Your task to perform on an android device: Show the shopping cart on target.com. Search for "acer predator" on target.com, select the first entry, add it to the cart, then select checkout. Image 0: 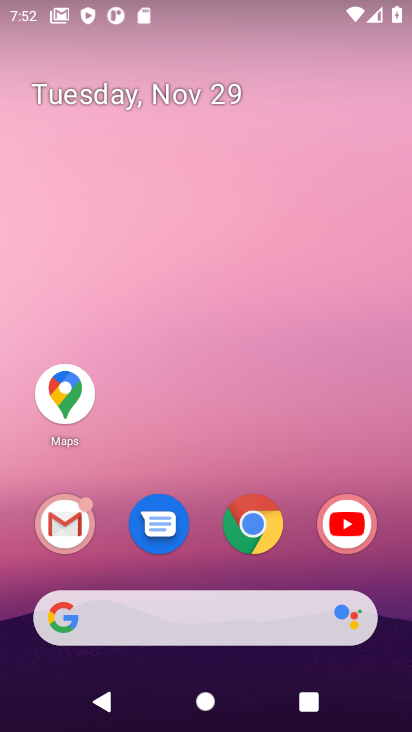
Step 0: click (250, 526)
Your task to perform on an android device: Show the shopping cart on target.com. Search for "acer predator" on target.com, select the first entry, add it to the cart, then select checkout. Image 1: 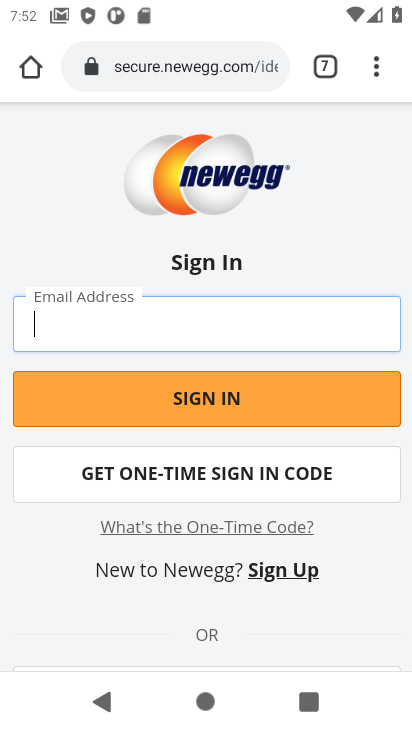
Step 1: click (193, 69)
Your task to perform on an android device: Show the shopping cart on target.com. Search for "acer predator" on target.com, select the first entry, add it to the cart, then select checkout. Image 2: 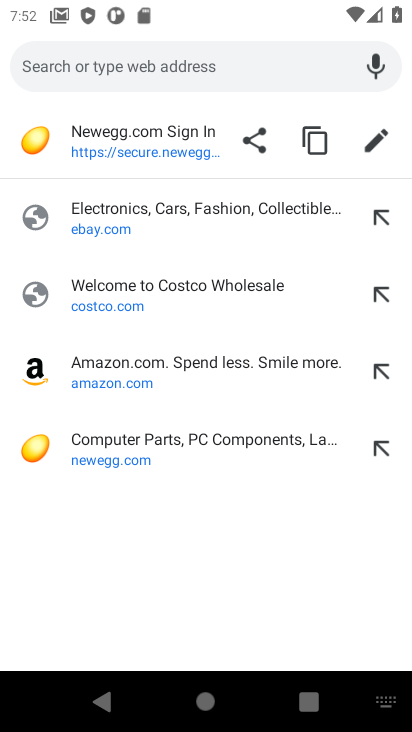
Step 2: type "target.com"
Your task to perform on an android device: Show the shopping cart on target.com. Search for "acer predator" on target.com, select the first entry, add it to the cart, then select checkout. Image 3: 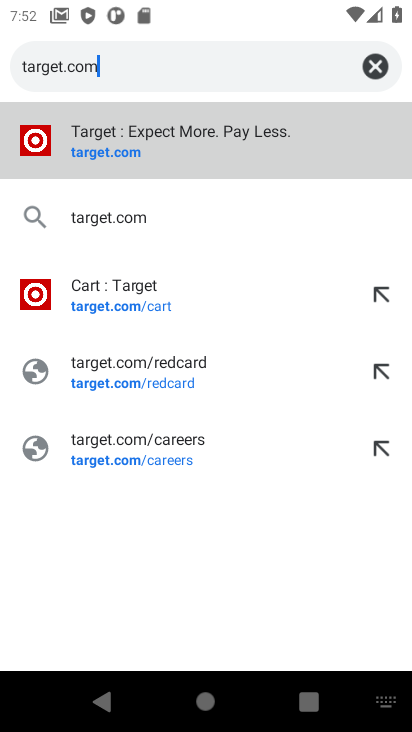
Step 3: click (111, 148)
Your task to perform on an android device: Show the shopping cart on target.com. Search for "acer predator" on target.com, select the first entry, add it to the cart, then select checkout. Image 4: 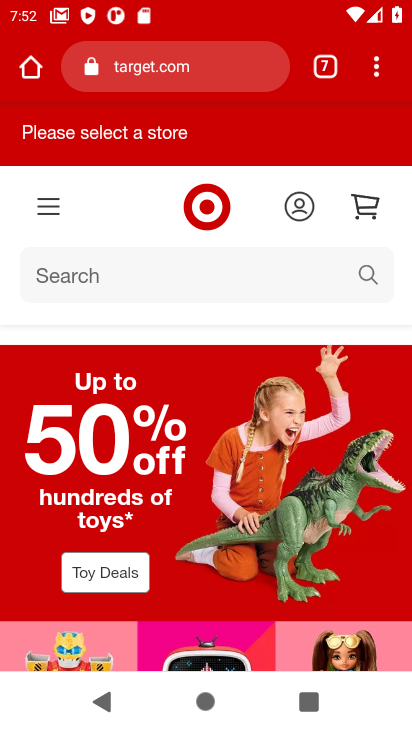
Step 4: click (362, 202)
Your task to perform on an android device: Show the shopping cart on target.com. Search for "acer predator" on target.com, select the first entry, add it to the cart, then select checkout. Image 5: 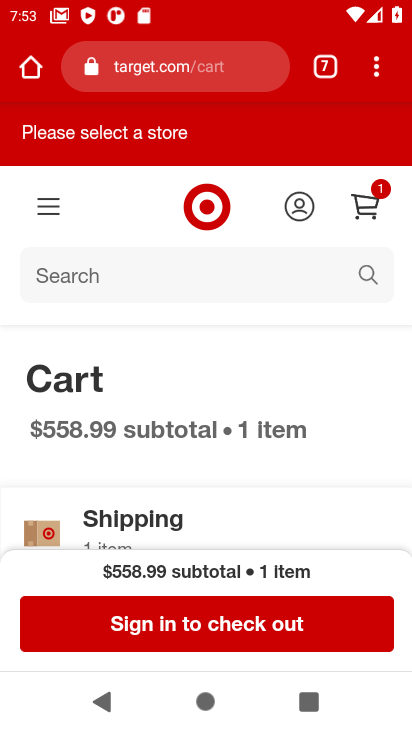
Step 5: drag from (340, 448) to (360, 315)
Your task to perform on an android device: Show the shopping cart on target.com. Search for "acer predator" on target.com, select the first entry, add it to the cart, then select checkout. Image 6: 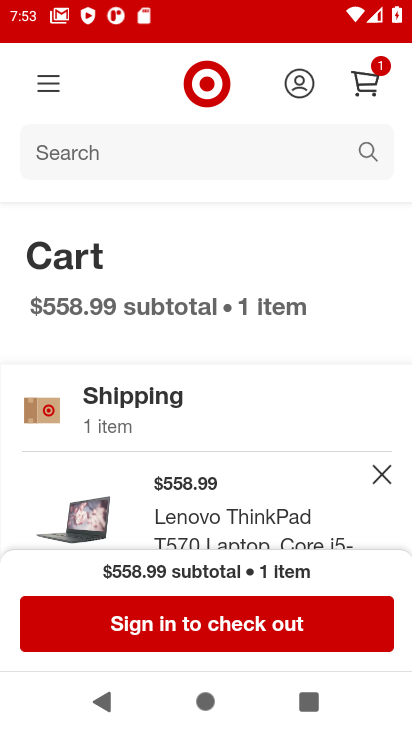
Step 6: click (42, 152)
Your task to perform on an android device: Show the shopping cart on target.com. Search for "acer predator" on target.com, select the first entry, add it to the cart, then select checkout. Image 7: 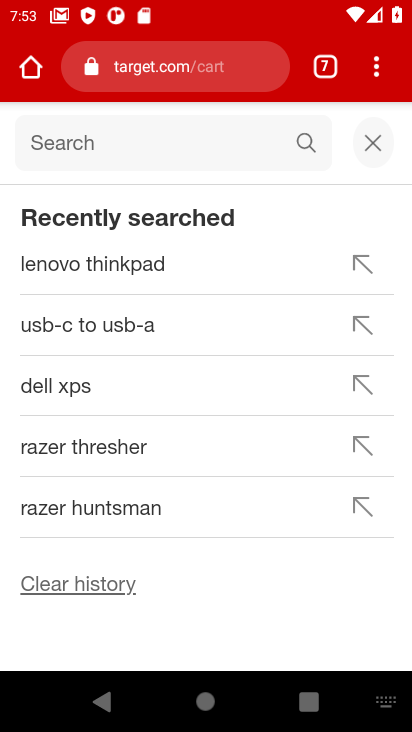
Step 7: type "acer predator"
Your task to perform on an android device: Show the shopping cart on target.com. Search for "acer predator" on target.com, select the first entry, add it to the cart, then select checkout. Image 8: 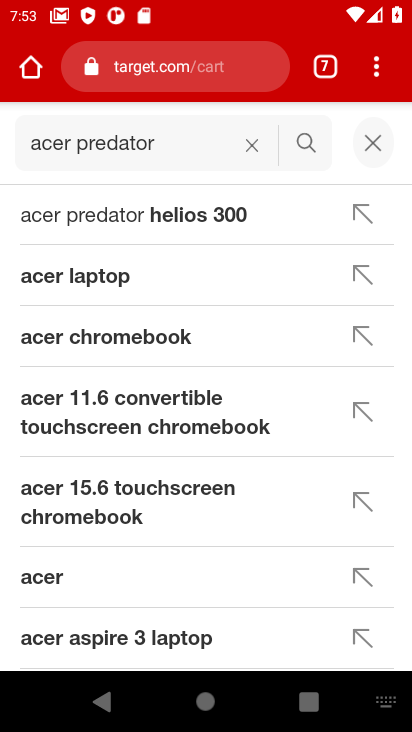
Step 8: click (308, 143)
Your task to perform on an android device: Show the shopping cart on target.com. Search for "acer predator" on target.com, select the first entry, add it to the cart, then select checkout. Image 9: 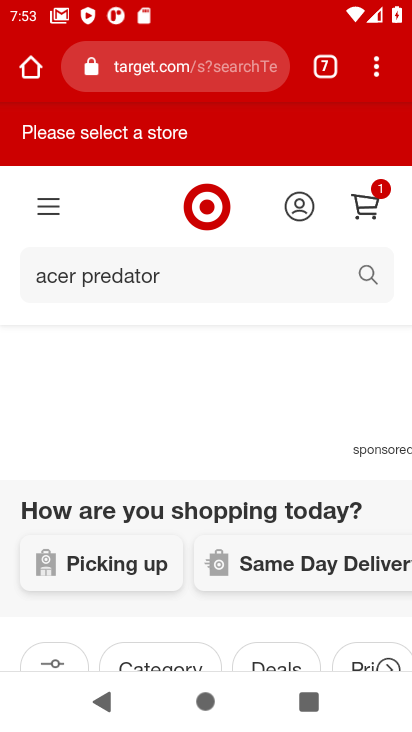
Step 9: drag from (129, 383) to (108, 159)
Your task to perform on an android device: Show the shopping cart on target.com. Search for "acer predator" on target.com, select the first entry, add it to the cart, then select checkout. Image 10: 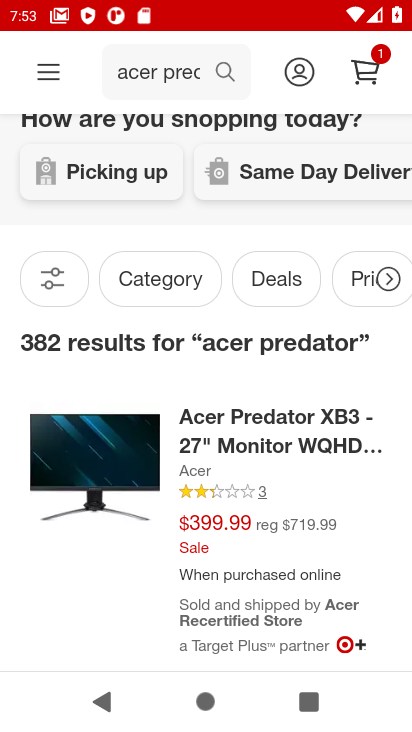
Step 10: drag from (97, 435) to (95, 285)
Your task to perform on an android device: Show the shopping cart on target.com. Search for "acer predator" on target.com, select the first entry, add it to the cart, then select checkout. Image 11: 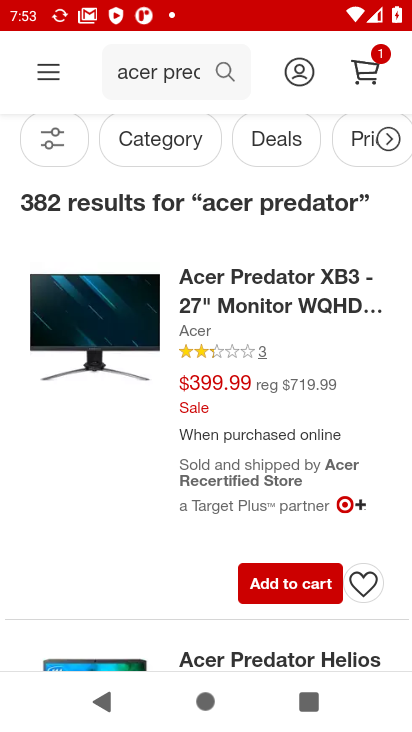
Step 11: click (265, 580)
Your task to perform on an android device: Show the shopping cart on target.com. Search for "acer predator" on target.com, select the first entry, add it to the cart, then select checkout. Image 12: 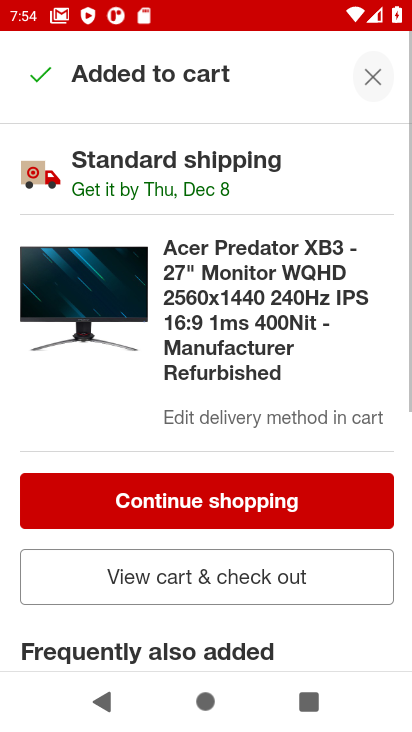
Step 12: click (265, 580)
Your task to perform on an android device: Show the shopping cart on target.com. Search for "acer predator" on target.com, select the first entry, add it to the cart, then select checkout. Image 13: 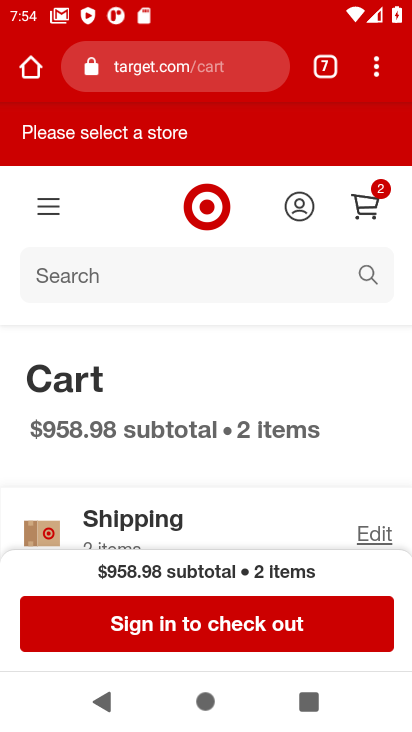
Step 13: click (226, 620)
Your task to perform on an android device: Show the shopping cart on target.com. Search for "acer predator" on target.com, select the first entry, add it to the cart, then select checkout. Image 14: 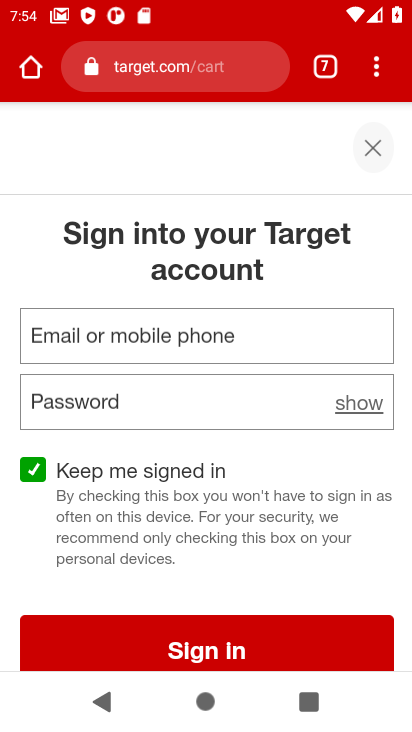
Step 14: task complete